Your task to perform on an android device: open device folders in google photos Image 0: 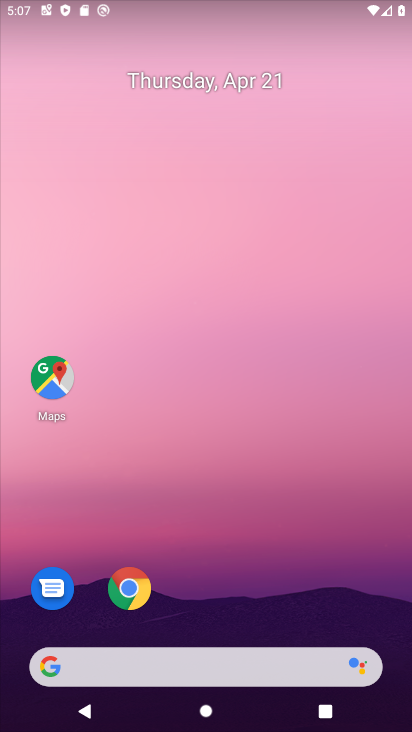
Step 0: drag from (235, 565) to (393, 22)
Your task to perform on an android device: open device folders in google photos Image 1: 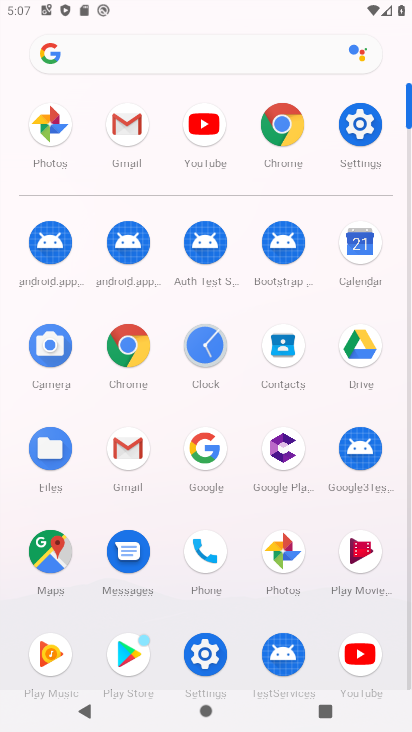
Step 1: click (283, 549)
Your task to perform on an android device: open device folders in google photos Image 2: 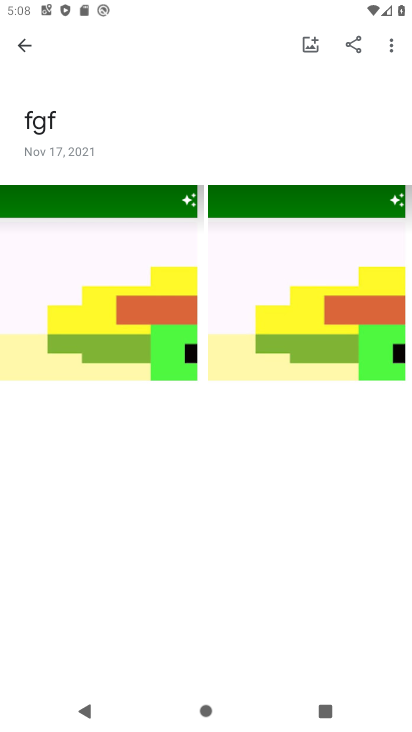
Step 2: press back button
Your task to perform on an android device: open device folders in google photos Image 3: 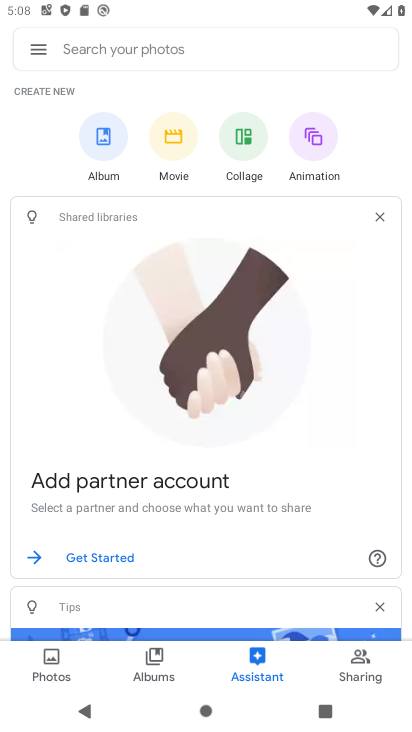
Step 3: click (31, 49)
Your task to perform on an android device: open device folders in google photos Image 4: 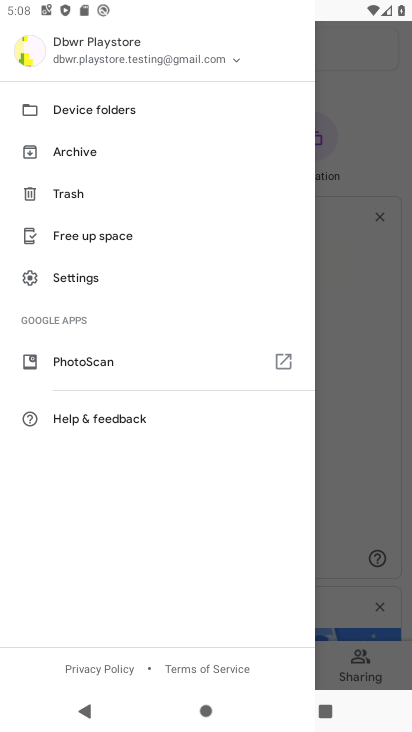
Step 4: click (118, 110)
Your task to perform on an android device: open device folders in google photos Image 5: 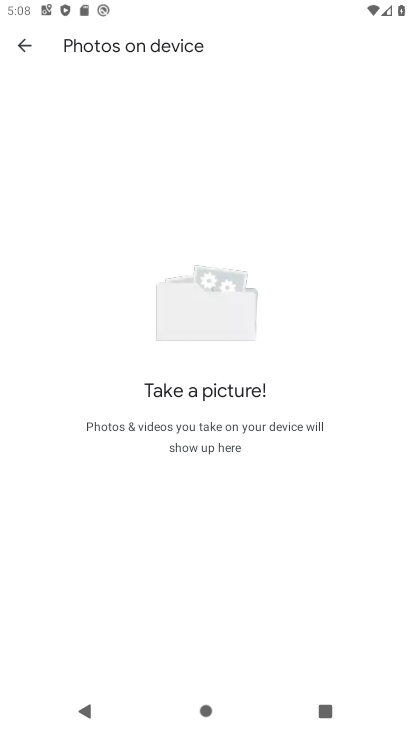
Step 5: task complete